Your task to perform on an android device: turn off location Image 0: 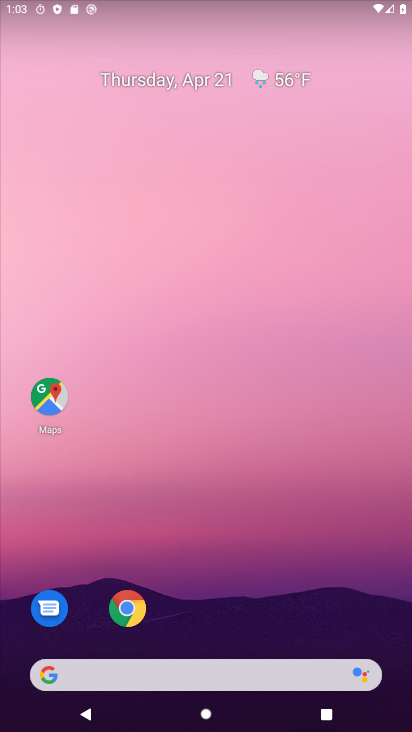
Step 0: drag from (268, 576) to (263, 25)
Your task to perform on an android device: turn off location Image 1: 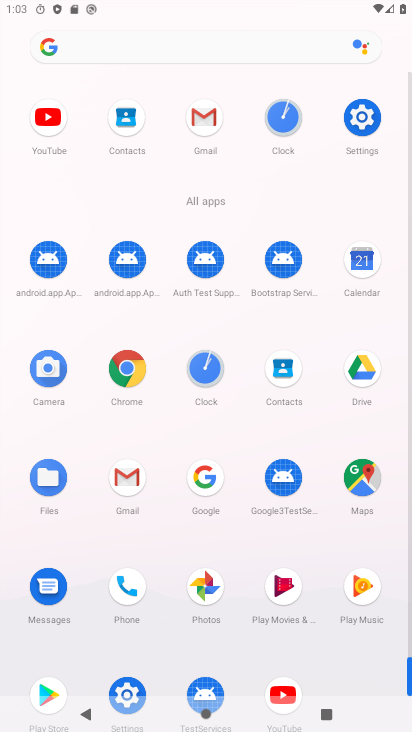
Step 1: click (358, 122)
Your task to perform on an android device: turn off location Image 2: 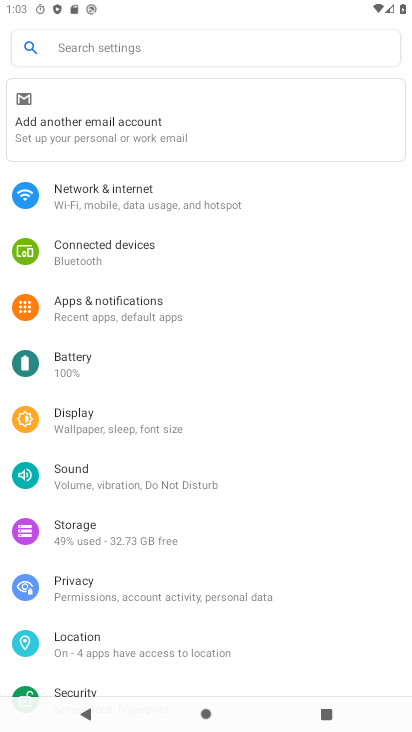
Step 2: click (140, 646)
Your task to perform on an android device: turn off location Image 3: 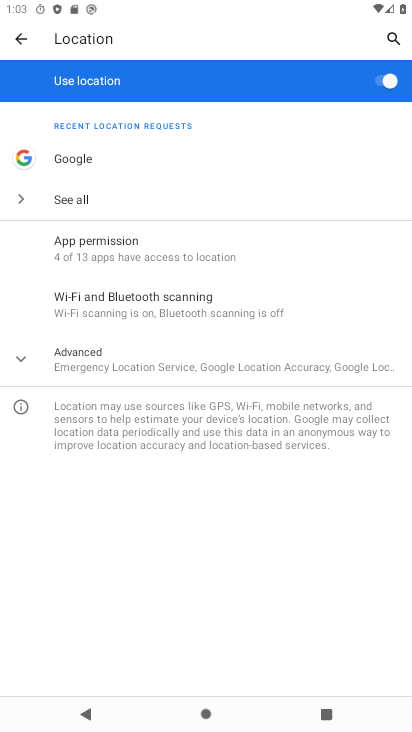
Step 3: click (380, 79)
Your task to perform on an android device: turn off location Image 4: 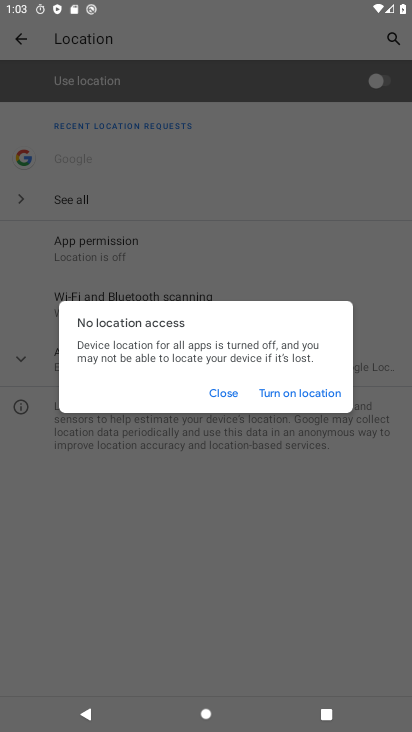
Step 4: click (223, 386)
Your task to perform on an android device: turn off location Image 5: 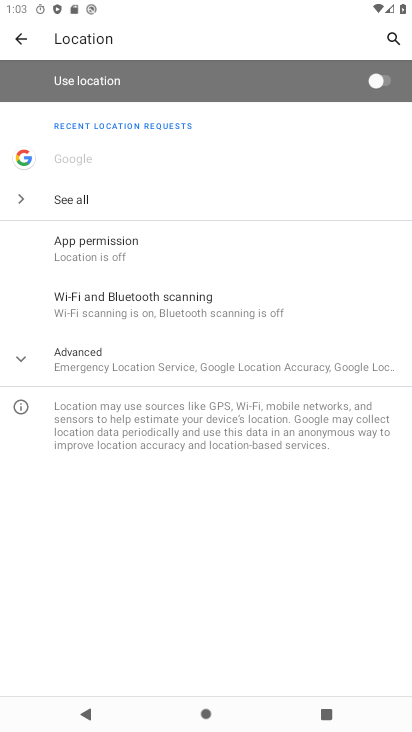
Step 5: task complete